Your task to perform on an android device: toggle location history Image 0: 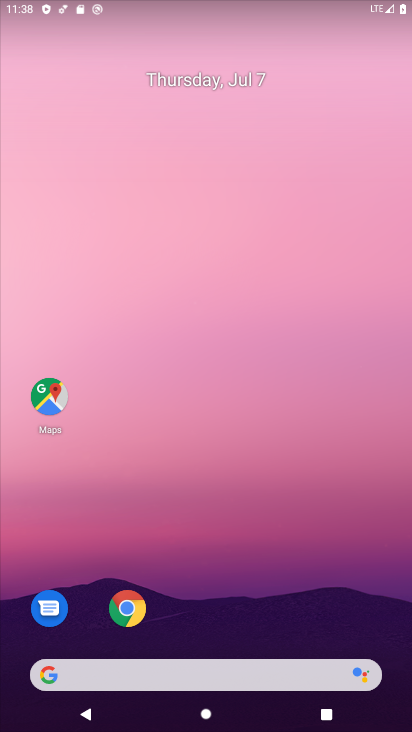
Step 0: drag from (236, 653) to (347, 135)
Your task to perform on an android device: toggle location history Image 1: 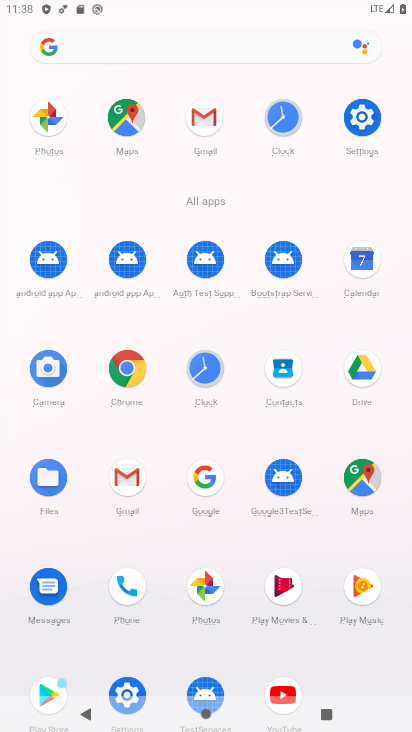
Step 1: click (130, 698)
Your task to perform on an android device: toggle location history Image 2: 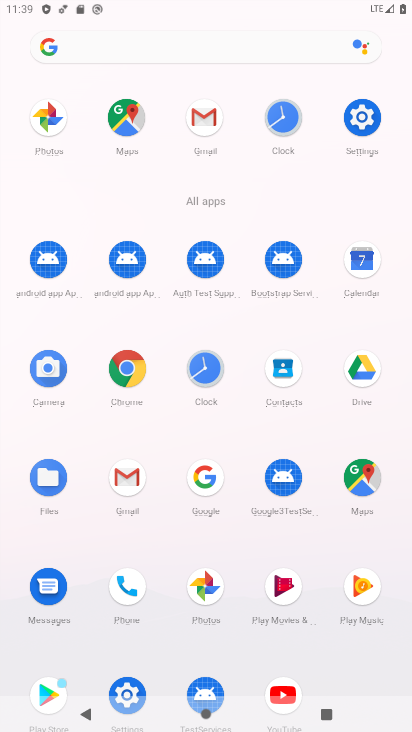
Step 2: click (130, 698)
Your task to perform on an android device: toggle location history Image 3: 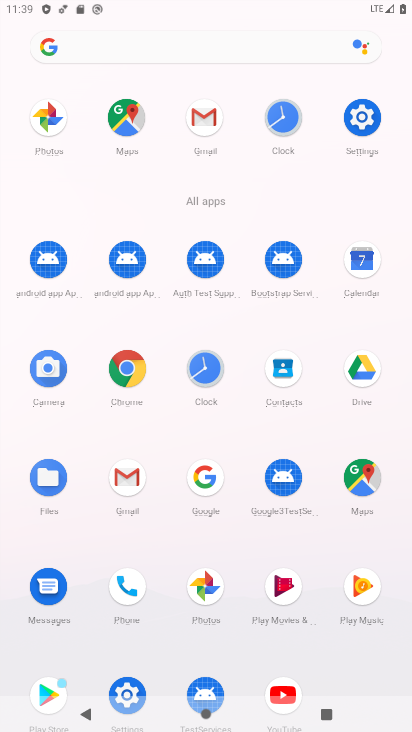
Step 3: click (127, 677)
Your task to perform on an android device: toggle location history Image 4: 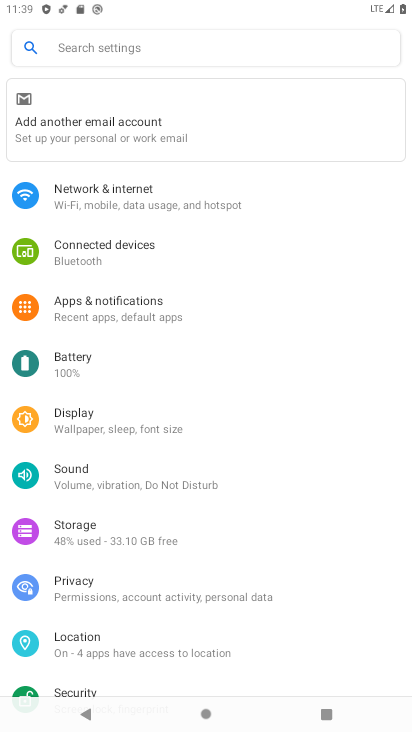
Step 4: click (97, 643)
Your task to perform on an android device: toggle location history Image 5: 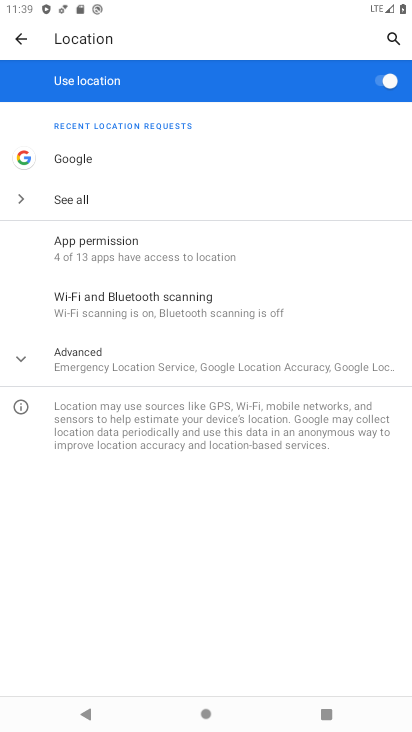
Step 5: click (147, 360)
Your task to perform on an android device: toggle location history Image 6: 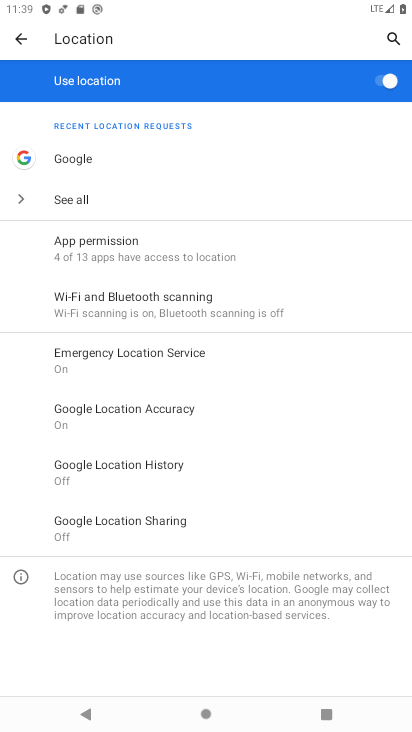
Step 6: click (176, 469)
Your task to perform on an android device: toggle location history Image 7: 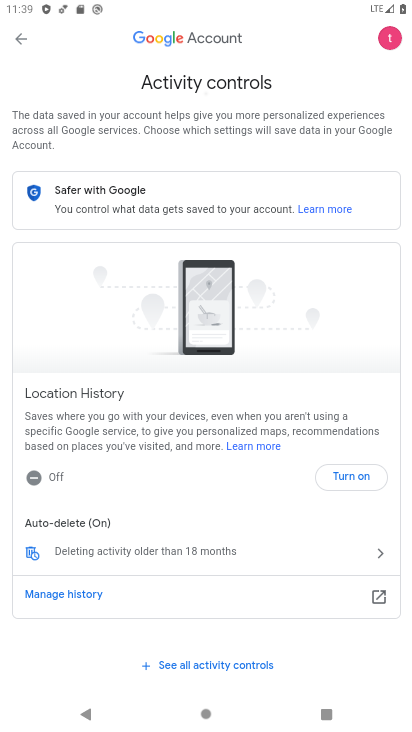
Step 7: click (347, 475)
Your task to perform on an android device: toggle location history Image 8: 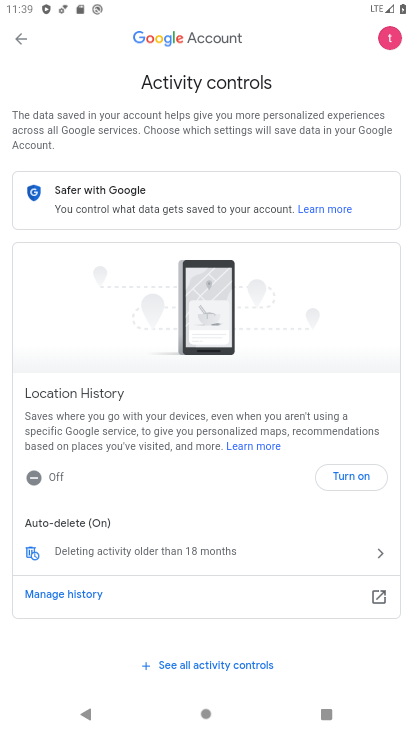
Step 8: click (349, 477)
Your task to perform on an android device: toggle location history Image 9: 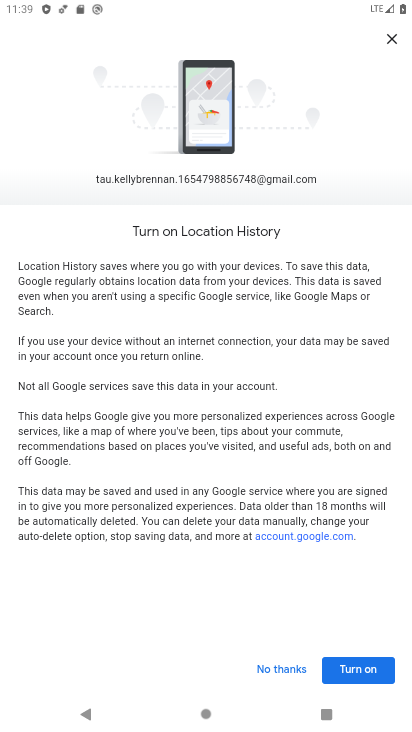
Step 9: click (359, 667)
Your task to perform on an android device: toggle location history Image 10: 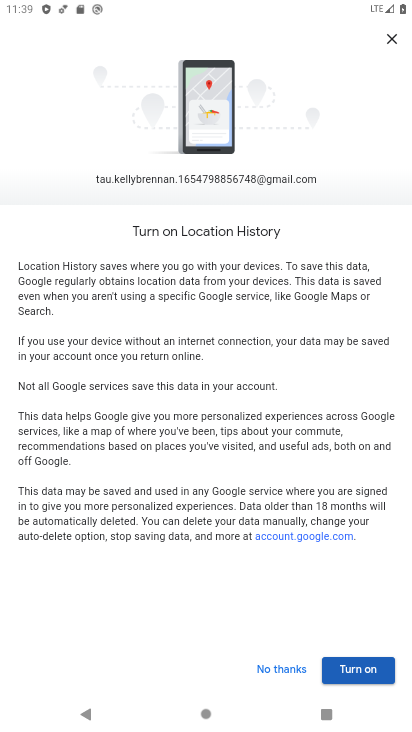
Step 10: click (355, 671)
Your task to perform on an android device: toggle location history Image 11: 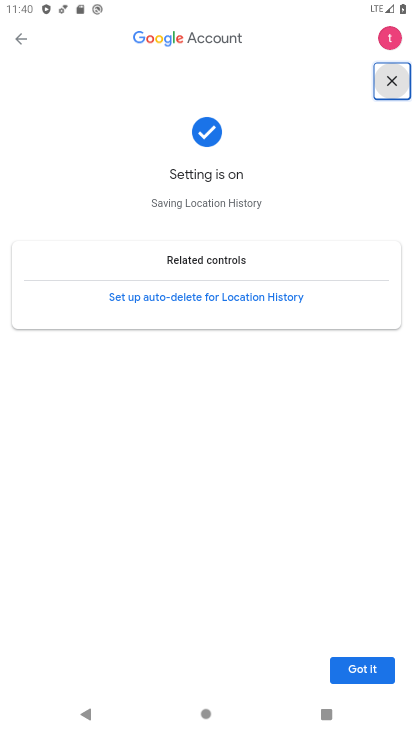
Step 11: click (360, 668)
Your task to perform on an android device: toggle location history Image 12: 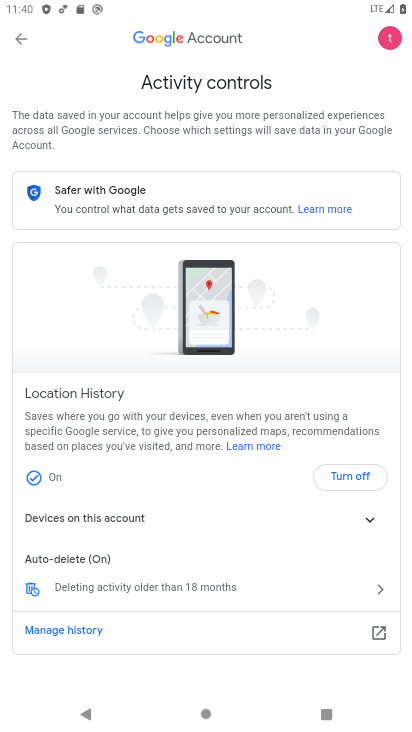
Step 12: task complete